Your task to perform on an android device: Go to sound settings Image 0: 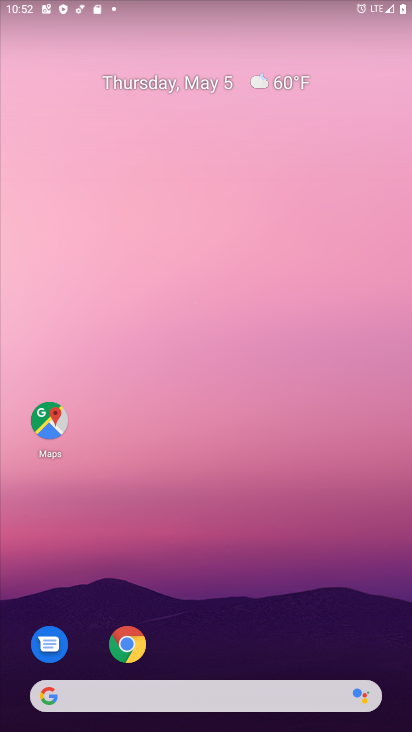
Step 0: drag from (225, 636) to (195, 159)
Your task to perform on an android device: Go to sound settings Image 1: 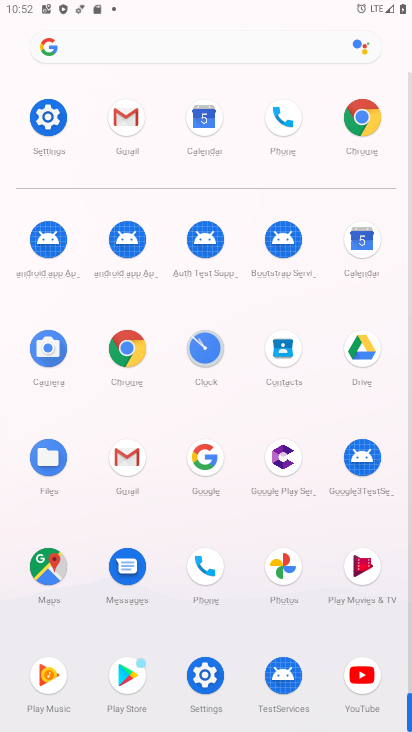
Step 1: click (58, 118)
Your task to perform on an android device: Go to sound settings Image 2: 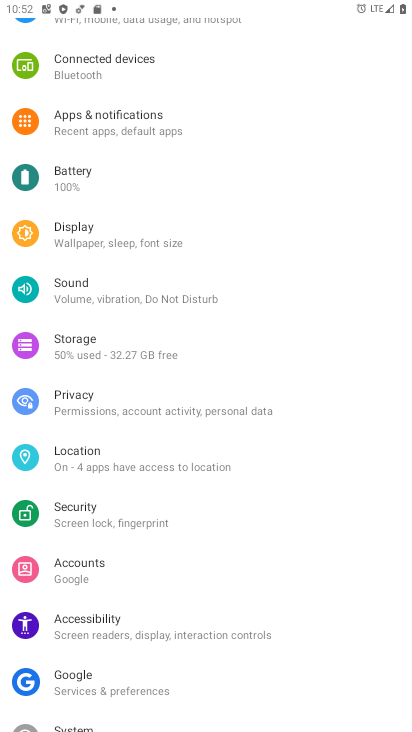
Step 2: click (122, 300)
Your task to perform on an android device: Go to sound settings Image 3: 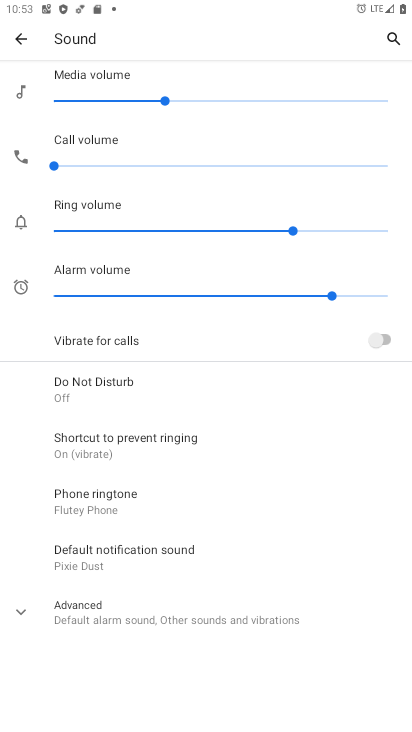
Step 3: task complete